Your task to perform on an android device: Check the weather Image 0: 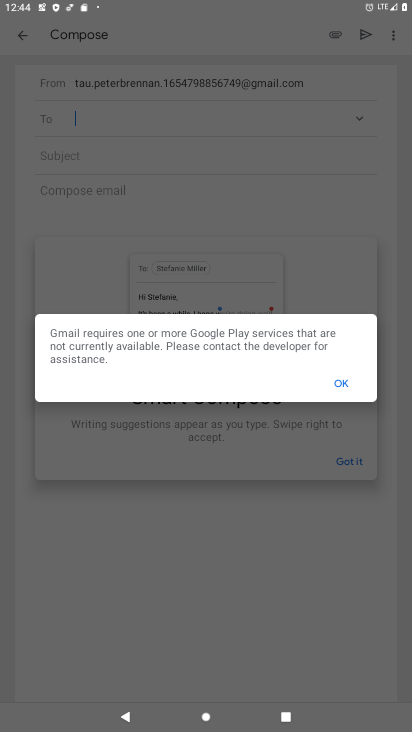
Step 0: press home button
Your task to perform on an android device: Check the weather Image 1: 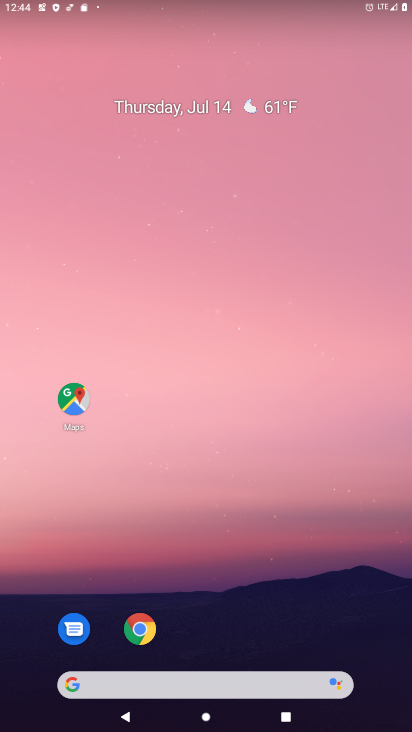
Step 1: click (203, 684)
Your task to perform on an android device: Check the weather Image 2: 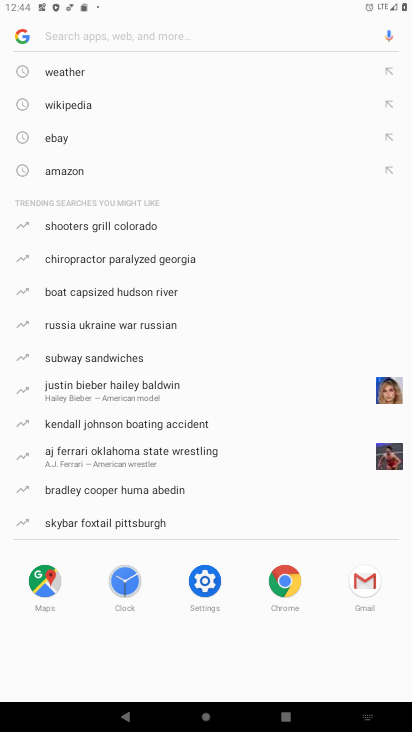
Step 2: click (67, 72)
Your task to perform on an android device: Check the weather Image 3: 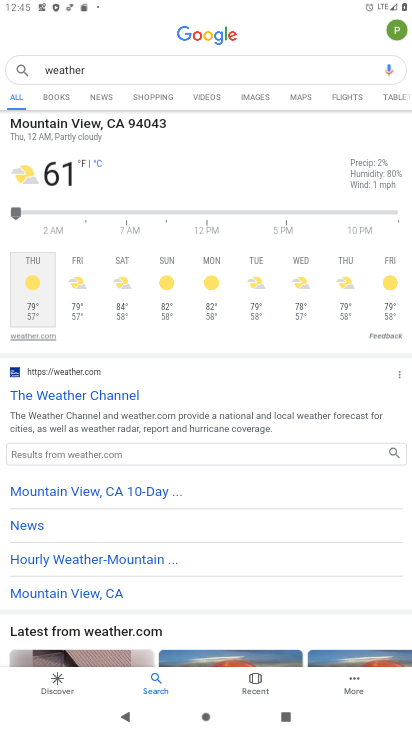
Step 3: task complete